Your task to perform on an android device: add a label to a message in the gmail app Image 0: 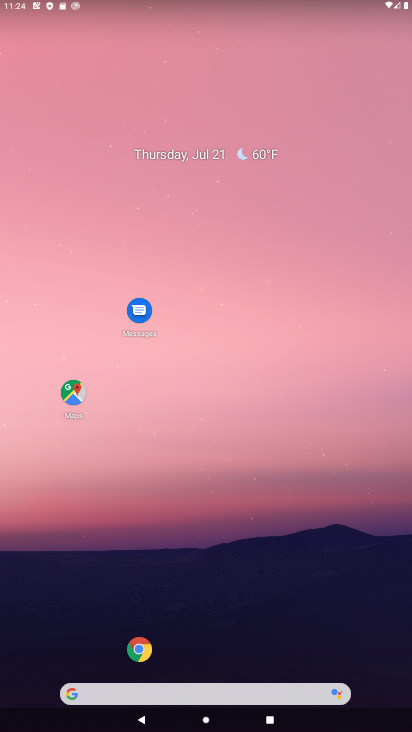
Step 0: drag from (180, 373) to (335, 76)
Your task to perform on an android device: add a label to a message in the gmail app Image 1: 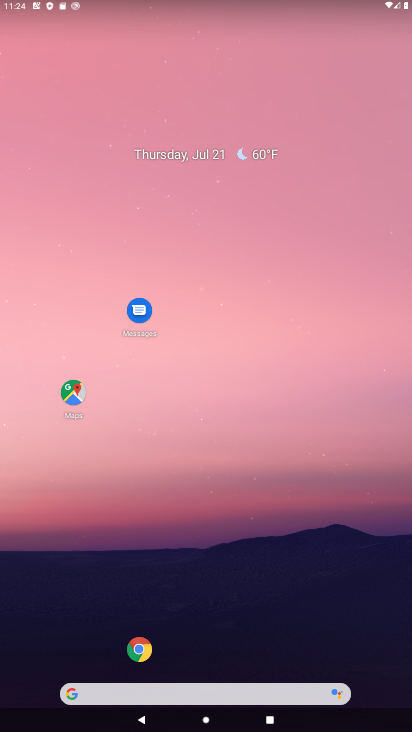
Step 1: drag from (71, 649) to (320, 0)
Your task to perform on an android device: add a label to a message in the gmail app Image 2: 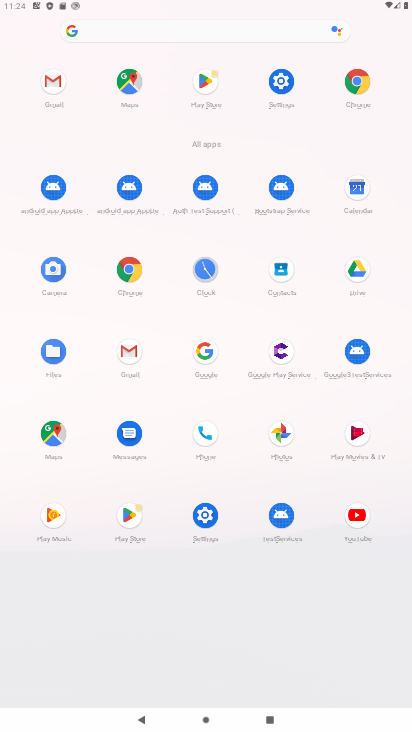
Step 2: click (111, 349)
Your task to perform on an android device: add a label to a message in the gmail app Image 3: 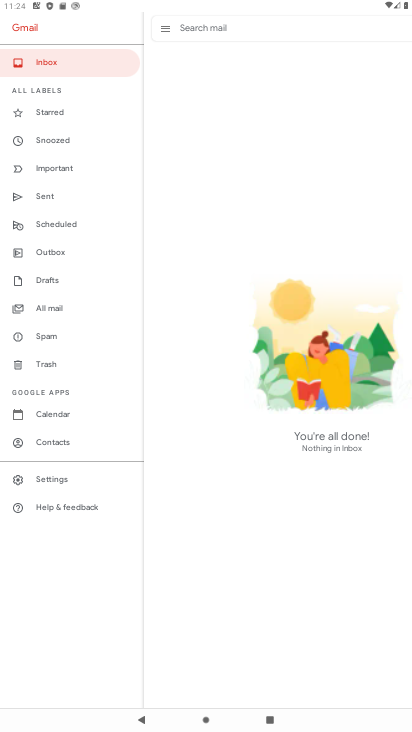
Step 3: task complete